Your task to perform on an android device: Add "apple airpods pro" to the cart on amazon.com Image 0: 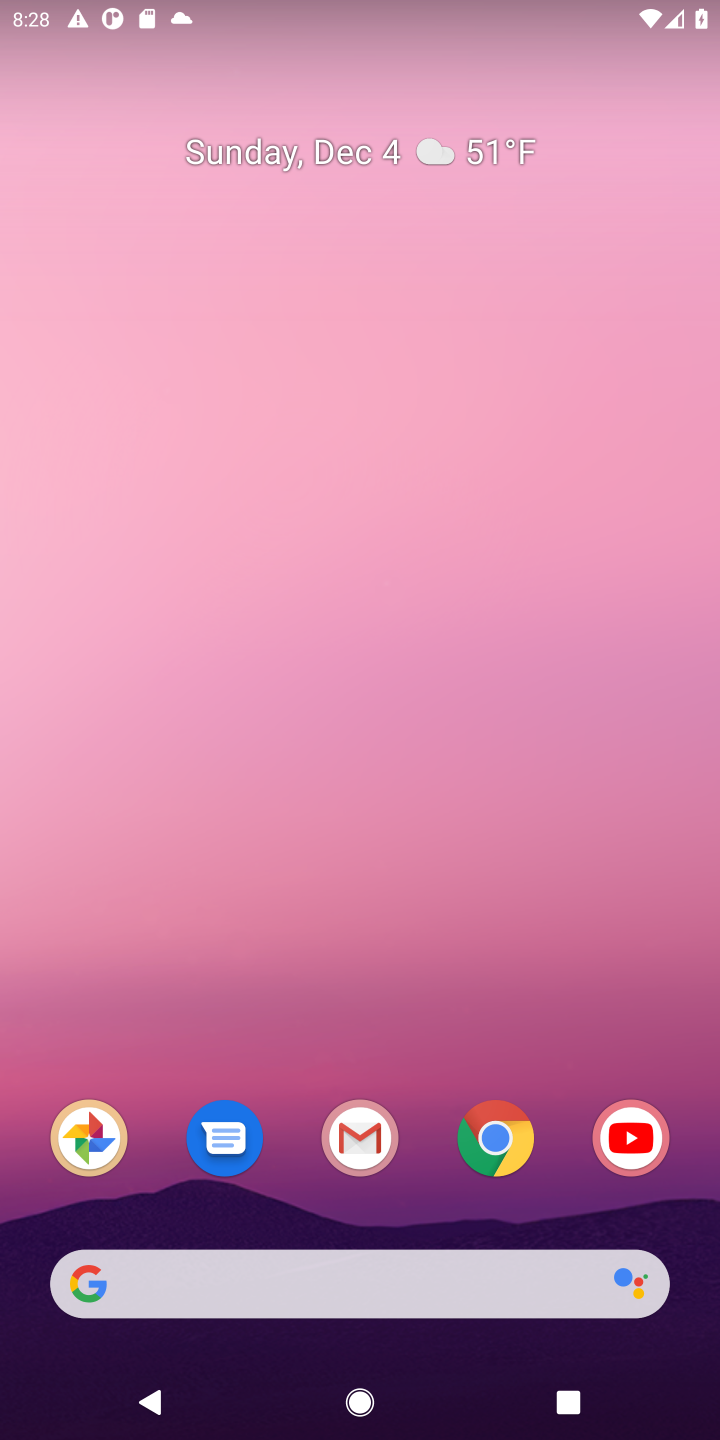
Step 0: click (502, 1148)
Your task to perform on an android device: Add "apple airpods pro" to the cart on amazon.com Image 1: 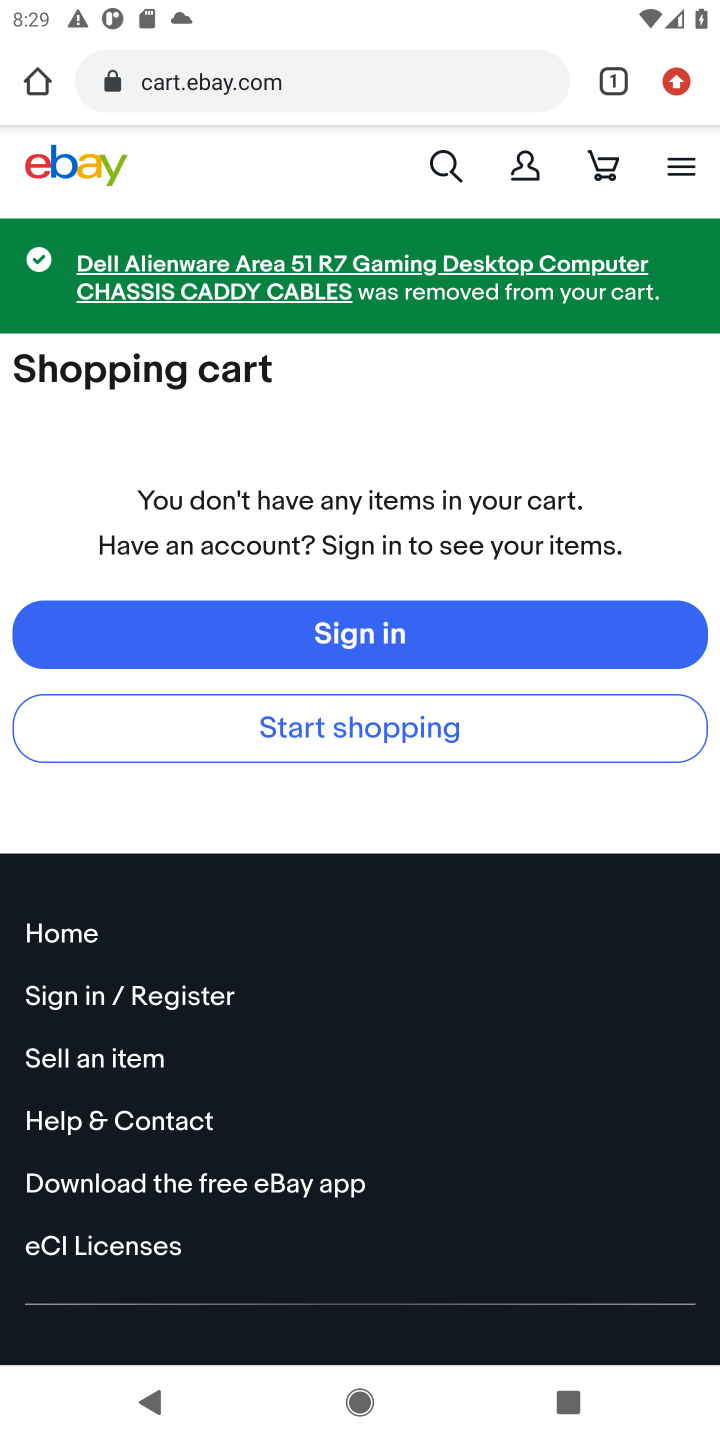
Step 1: click (411, 81)
Your task to perform on an android device: Add "apple airpods pro" to the cart on amazon.com Image 2: 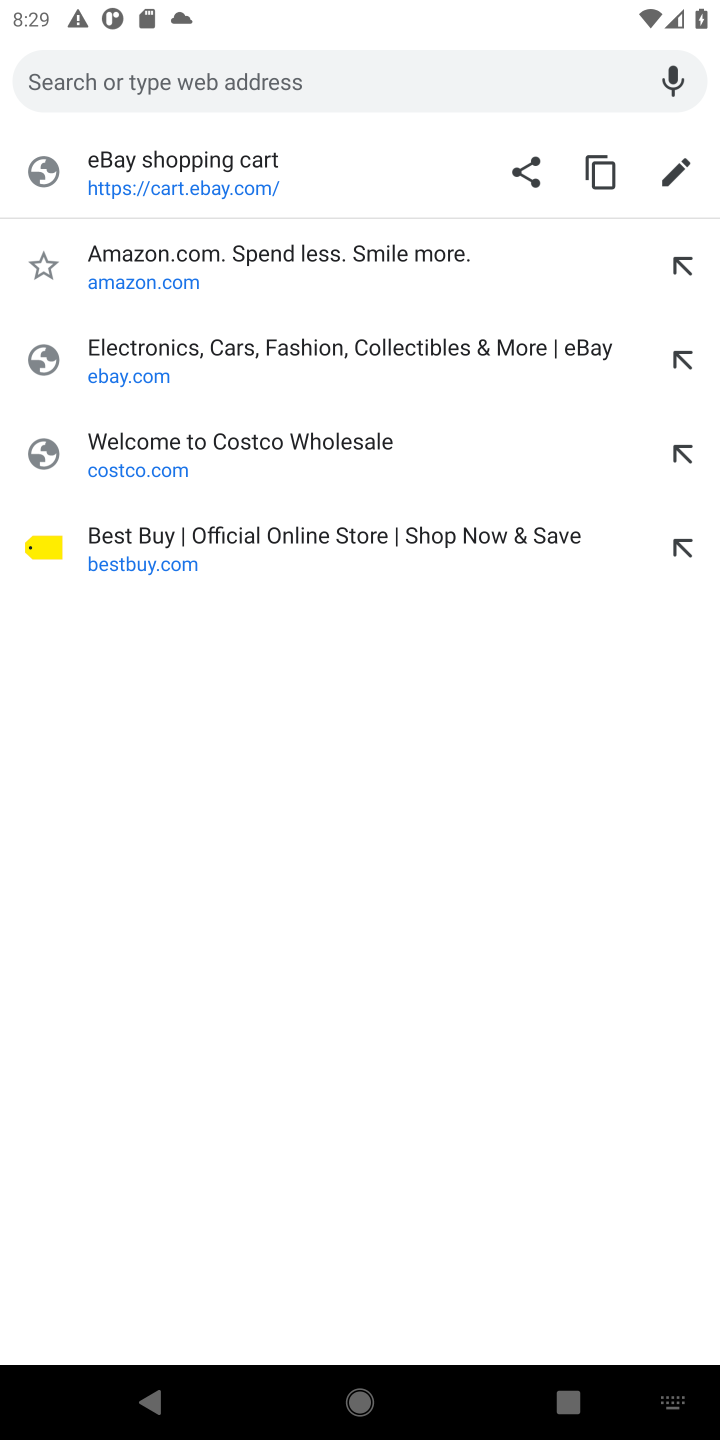
Step 2: click (315, 258)
Your task to perform on an android device: Add "apple airpods pro" to the cart on amazon.com Image 3: 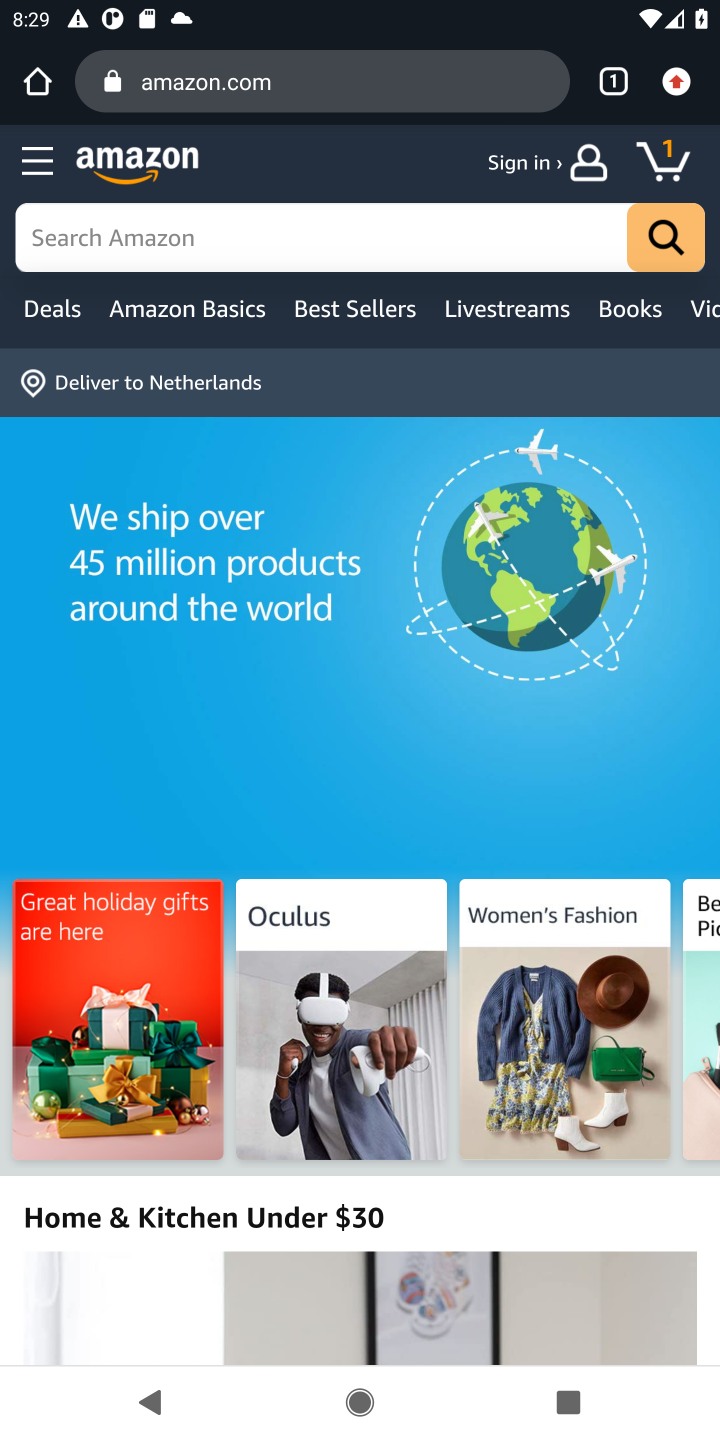
Step 3: click (306, 228)
Your task to perform on an android device: Add "apple airpods pro" to the cart on amazon.com Image 4: 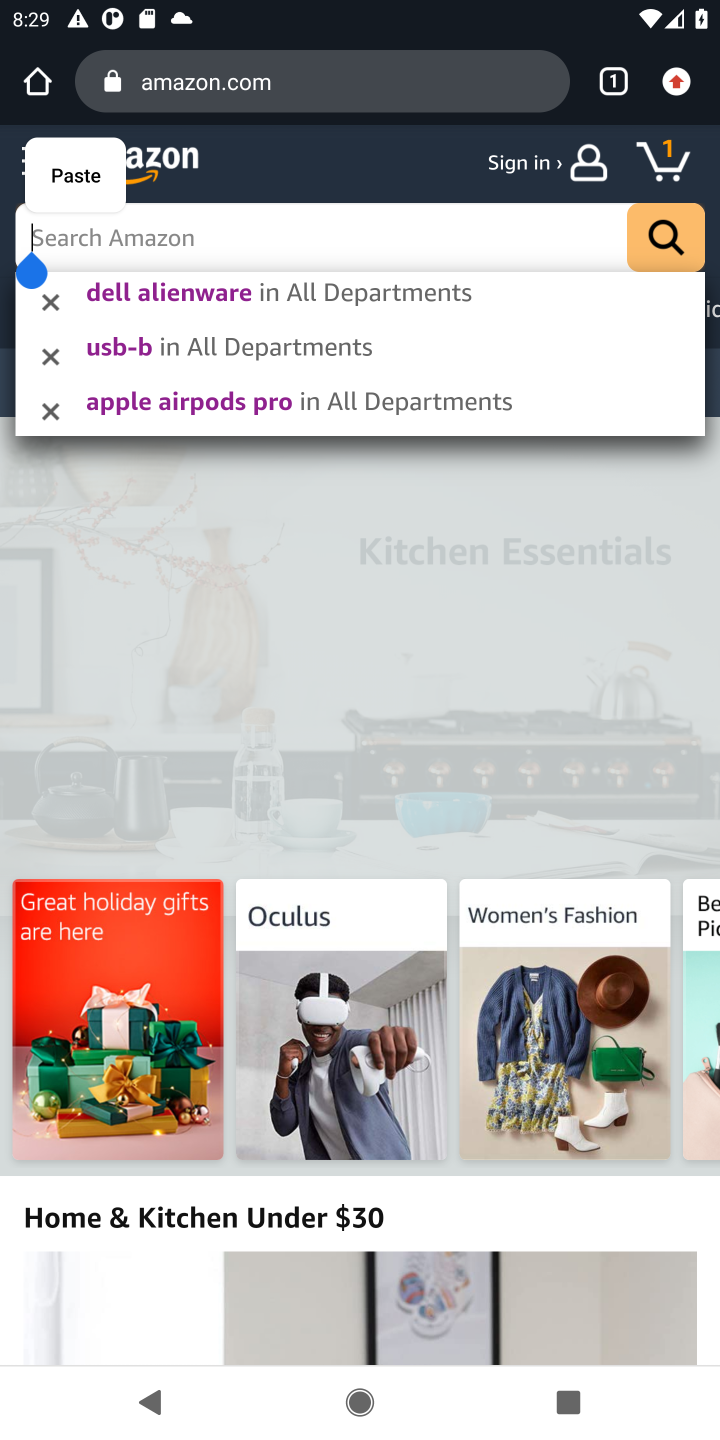
Step 4: press enter
Your task to perform on an android device: Add "apple airpods pro" to the cart on amazon.com Image 5: 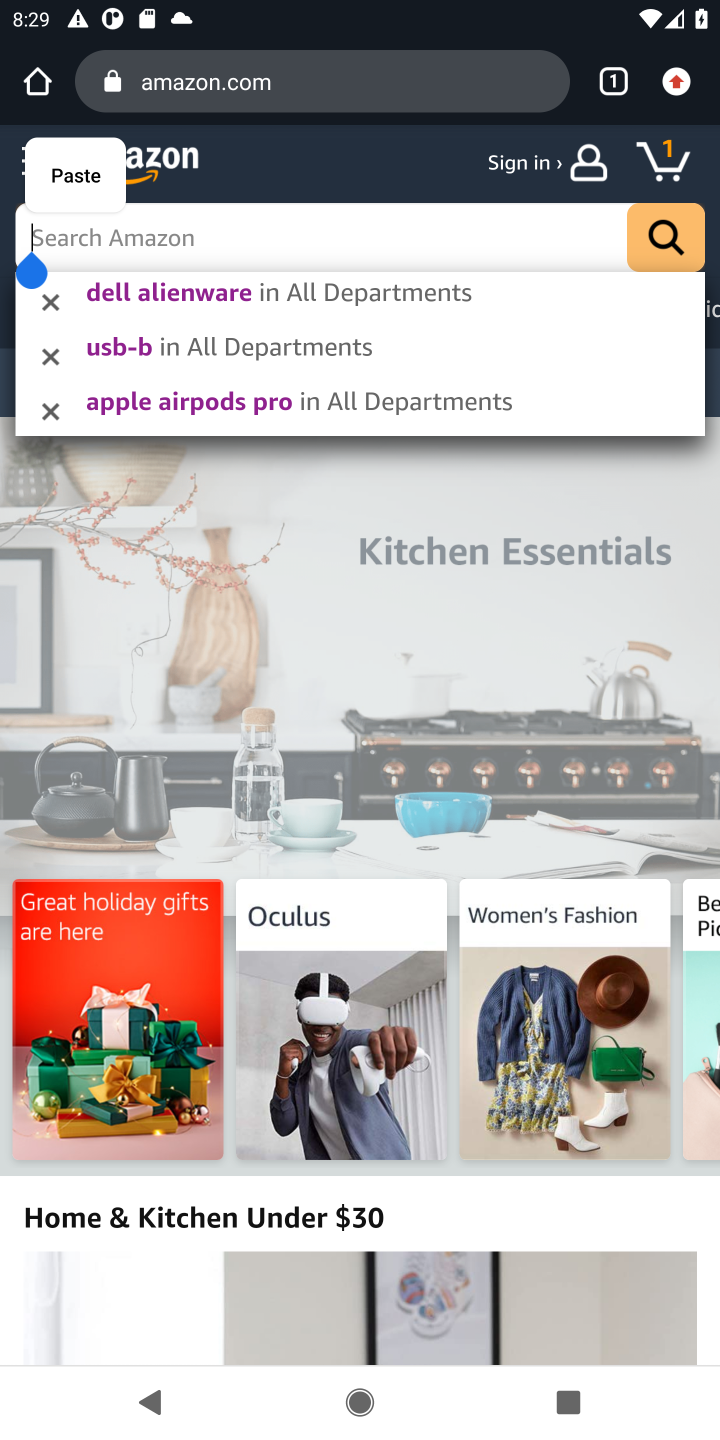
Step 5: type "apple airpods pro"
Your task to perform on an android device: Add "apple airpods pro" to the cart on amazon.com Image 6: 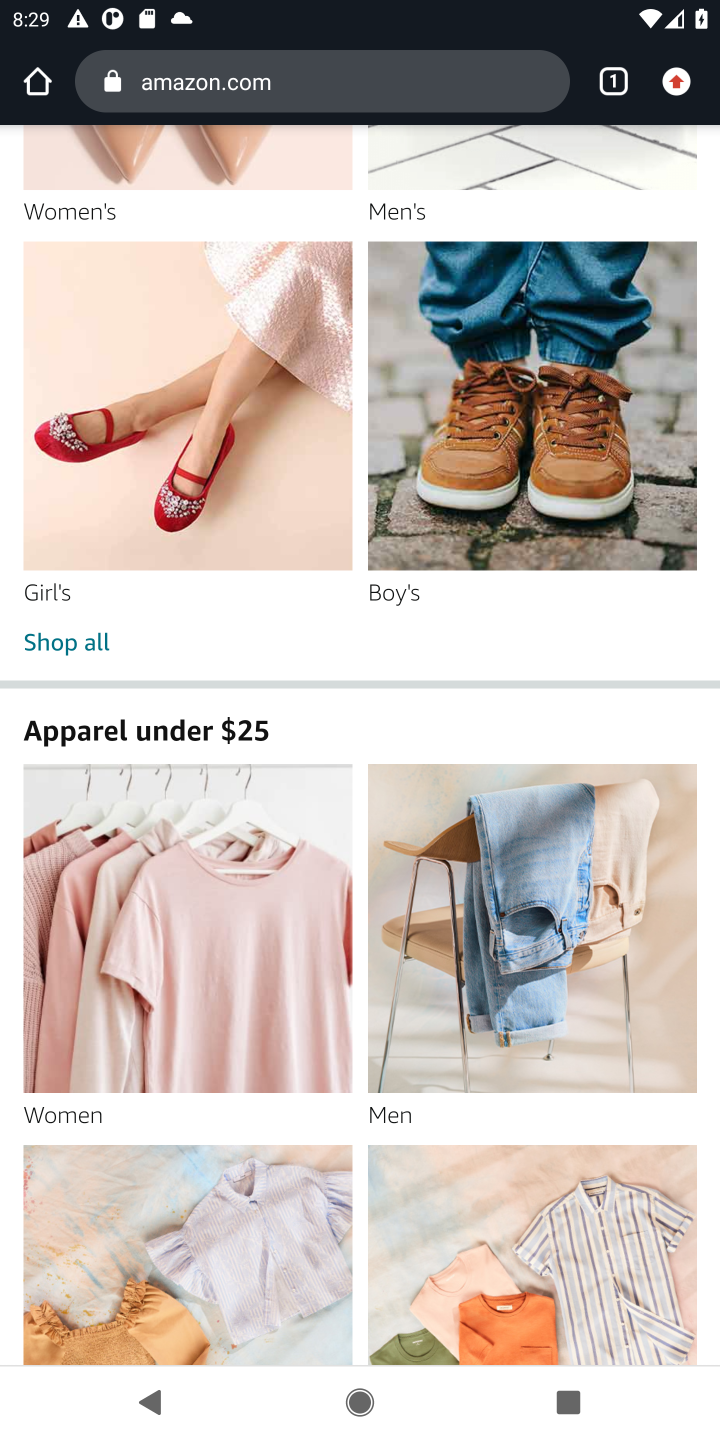
Step 6: press enter
Your task to perform on an android device: Add "apple airpods pro" to the cart on amazon.com Image 7: 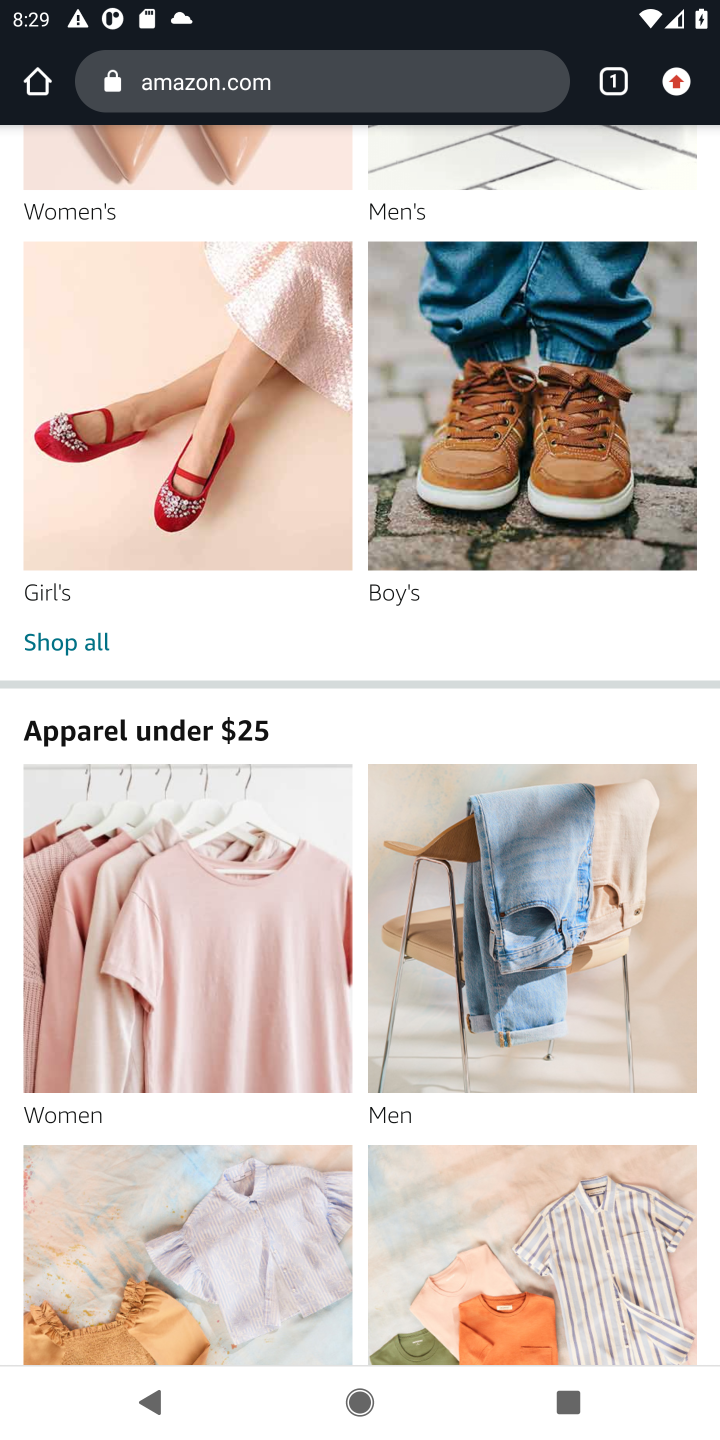
Step 7: task complete